Your task to perform on an android device: turn on airplane mode Image 0: 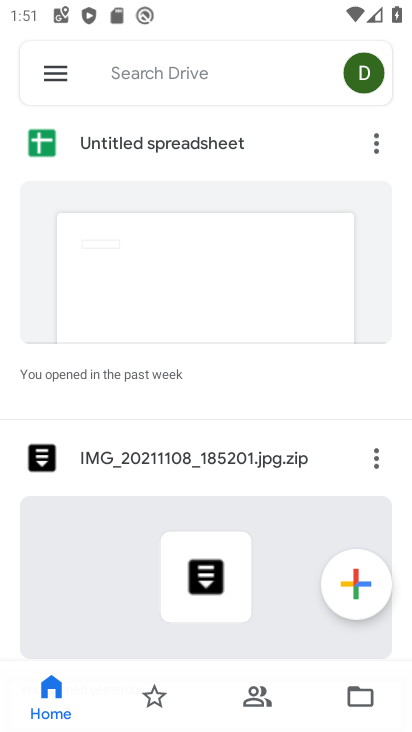
Step 0: press home button
Your task to perform on an android device: turn on airplane mode Image 1: 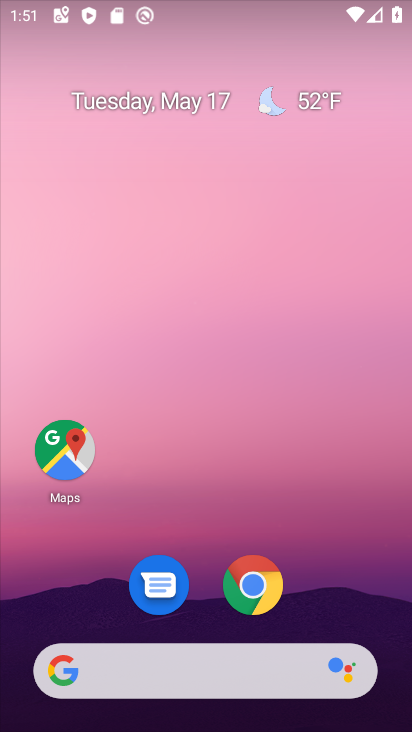
Step 1: drag from (272, 538) to (278, 132)
Your task to perform on an android device: turn on airplane mode Image 2: 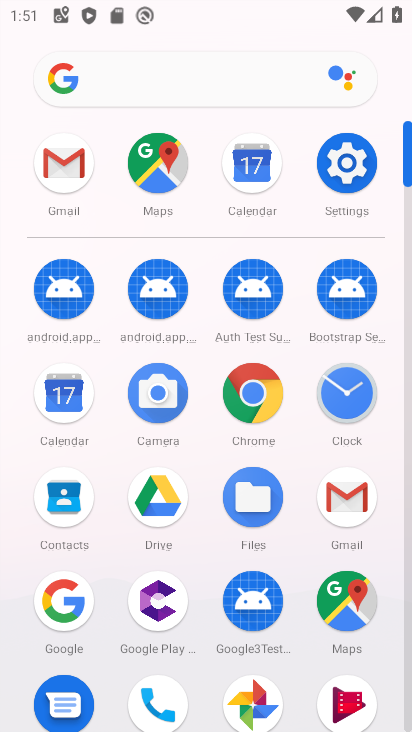
Step 2: click (352, 166)
Your task to perform on an android device: turn on airplane mode Image 3: 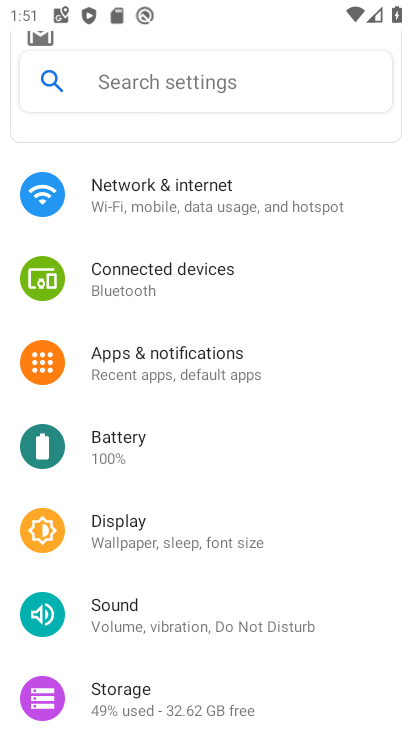
Step 3: click (274, 202)
Your task to perform on an android device: turn on airplane mode Image 4: 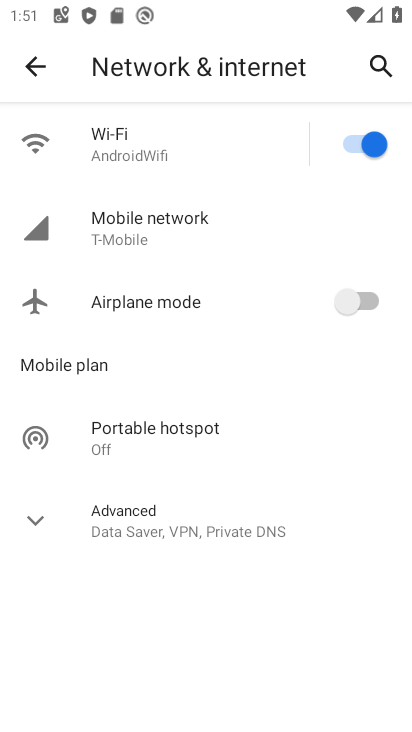
Step 4: click (359, 298)
Your task to perform on an android device: turn on airplane mode Image 5: 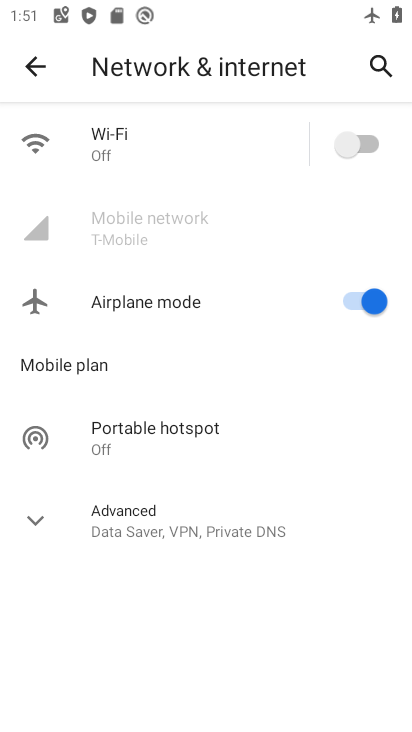
Step 5: task complete